Your task to perform on an android device: Open the Play Movies app and select the watchlist tab. Image 0: 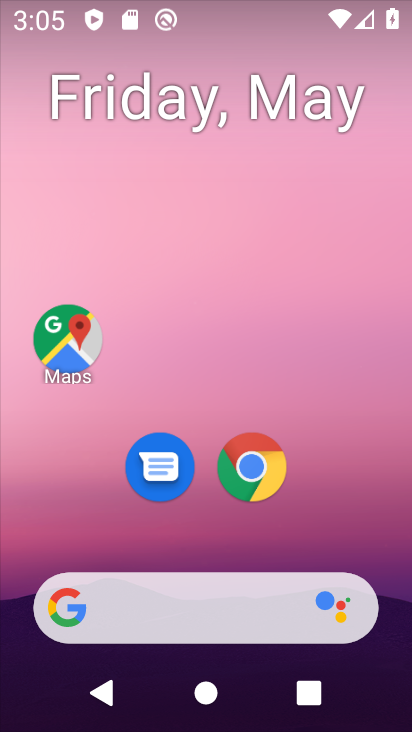
Step 0: drag from (342, 486) to (273, 0)
Your task to perform on an android device: Open the Play Movies app and select the watchlist tab. Image 1: 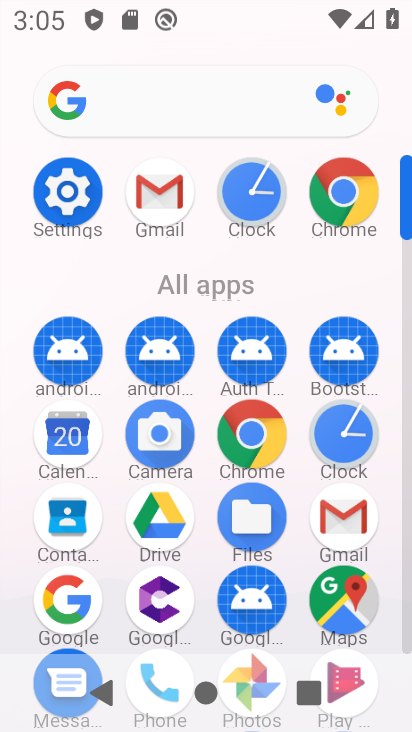
Step 1: drag from (402, 630) to (385, 350)
Your task to perform on an android device: Open the Play Movies app and select the watchlist tab. Image 2: 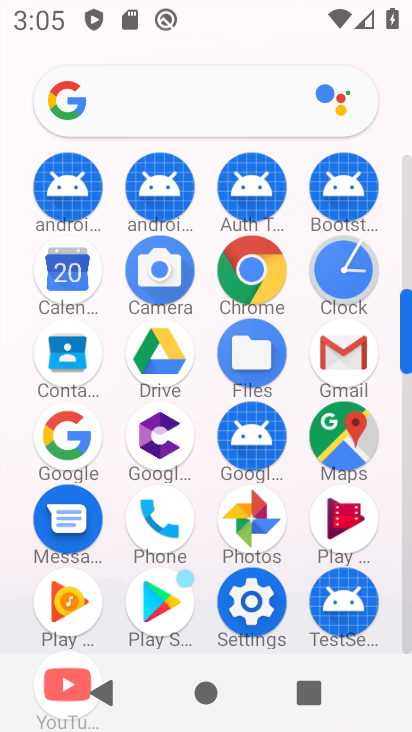
Step 2: click (349, 505)
Your task to perform on an android device: Open the Play Movies app and select the watchlist tab. Image 3: 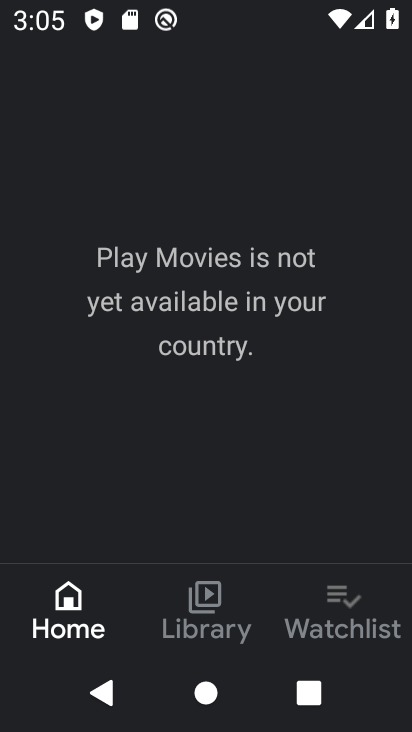
Step 3: click (340, 611)
Your task to perform on an android device: Open the Play Movies app and select the watchlist tab. Image 4: 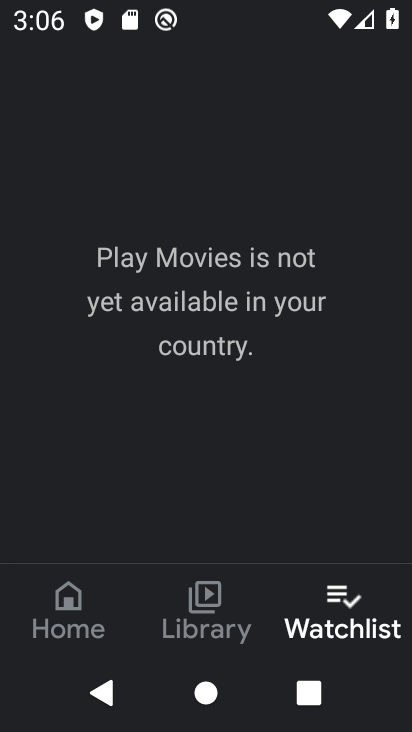
Step 4: task complete